Your task to perform on an android device: Show me the alarms in the clock app Image 0: 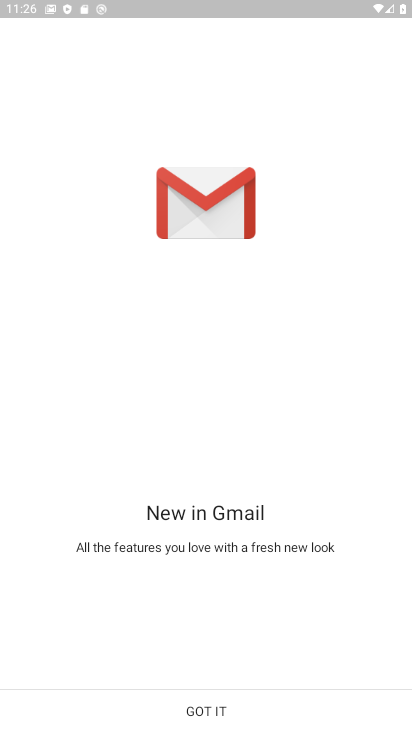
Step 0: press home button
Your task to perform on an android device: Show me the alarms in the clock app Image 1: 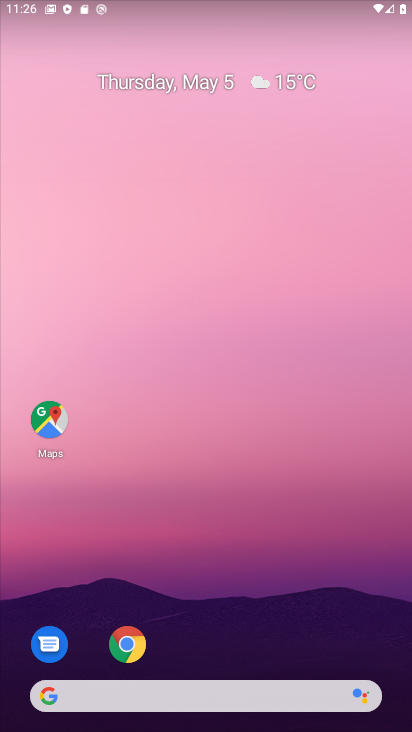
Step 1: drag from (220, 621) to (282, 130)
Your task to perform on an android device: Show me the alarms in the clock app Image 2: 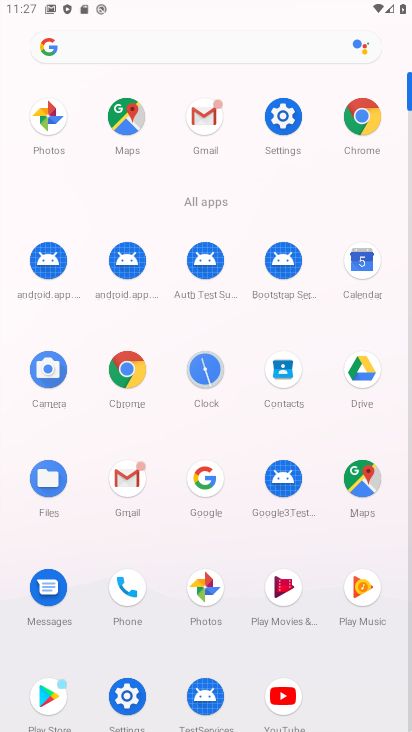
Step 2: click (199, 376)
Your task to perform on an android device: Show me the alarms in the clock app Image 3: 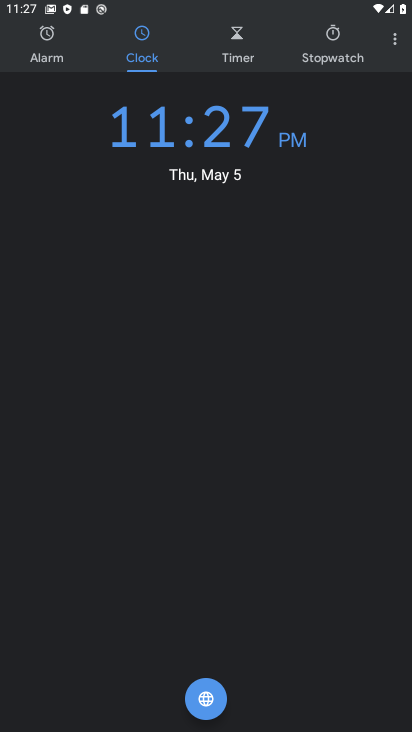
Step 3: click (47, 43)
Your task to perform on an android device: Show me the alarms in the clock app Image 4: 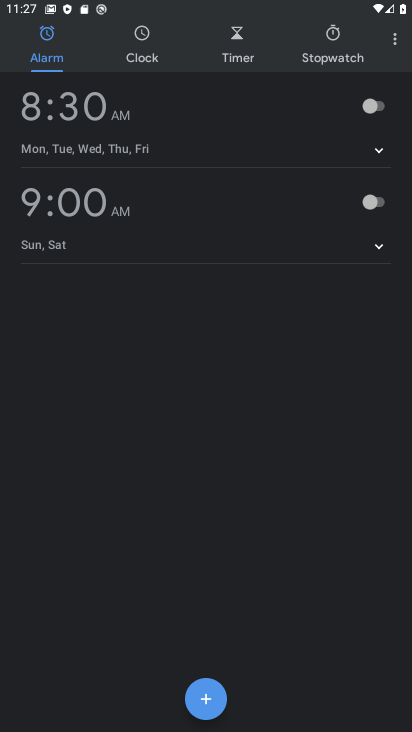
Step 4: task complete